Your task to perform on an android device: find which apps use the phone's location Image 0: 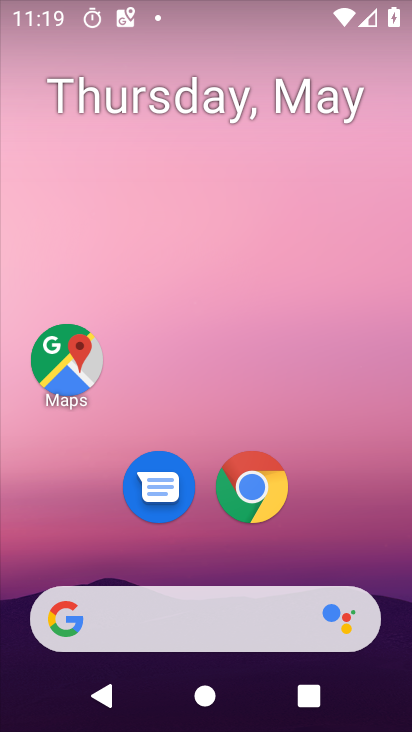
Step 0: drag from (319, 454) to (252, 63)
Your task to perform on an android device: find which apps use the phone's location Image 1: 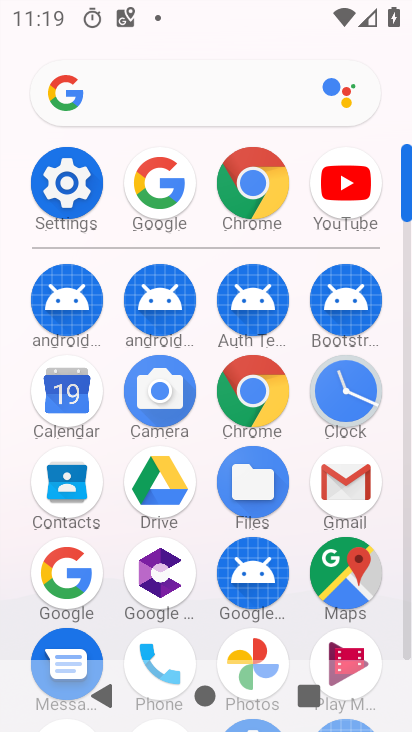
Step 1: click (65, 169)
Your task to perform on an android device: find which apps use the phone's location Image 2: 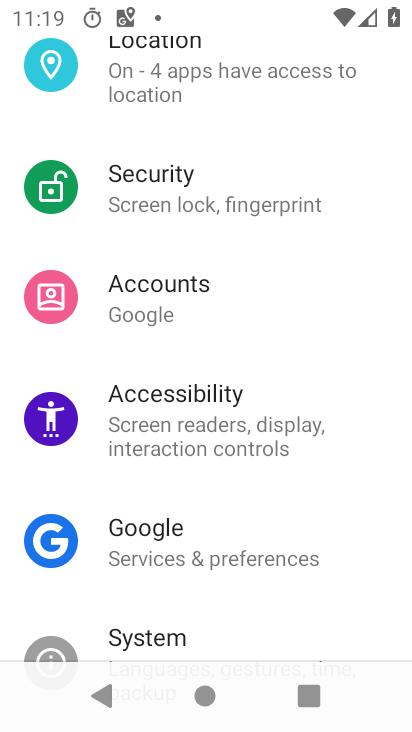
Step 2: drag from (299, 206) to (322, 419)
Your task to perform on an android device: find which apps use the phone's location Image 3: 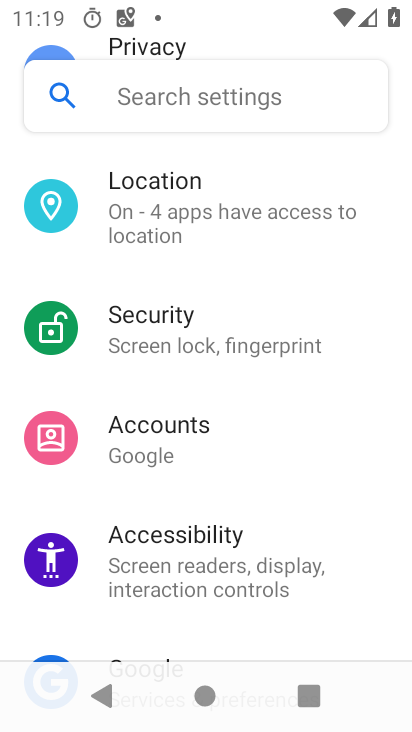
Step 3: click (238, 222)
Your task to perform on an android device: find which apps use the phone's location Image 4: 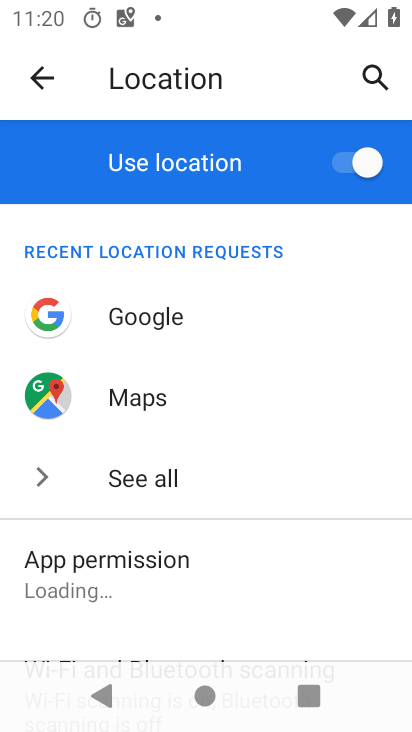
Step 4: click (158, 578)
Your task to perform on an android device: find which apps use the phone's location Image 5: 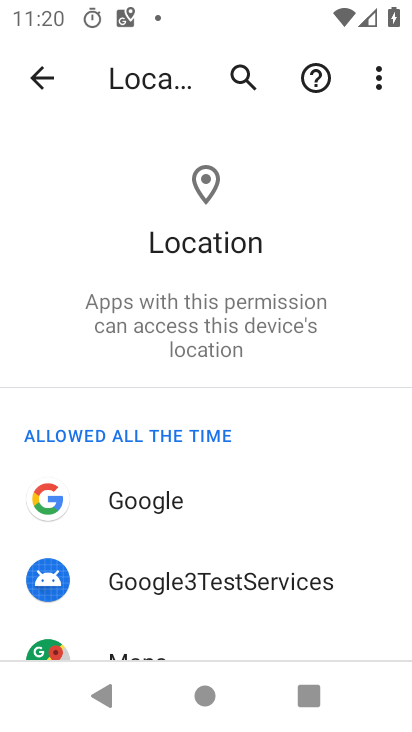
Step 5: task complete